Your task to perform on an android device: Delete the most recent email from tau.mosasaurusbr.1654798856748@gmail.com Image 0: 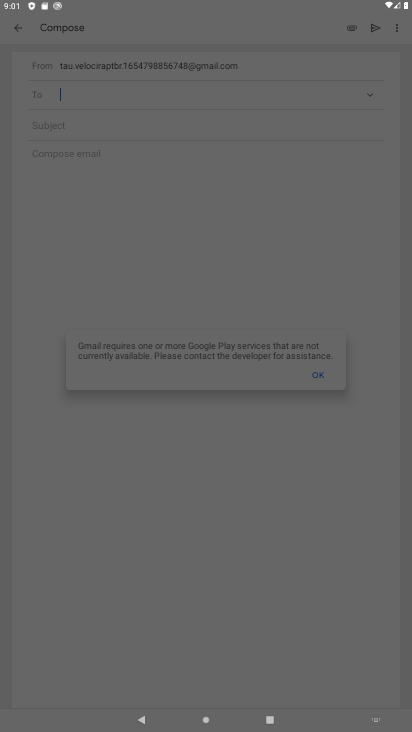
Step 0: press home button
Your task to perform on an android device: Delete the most recent email from tau.mosasaurusbr.1654798856748@gmail.com Image 1: 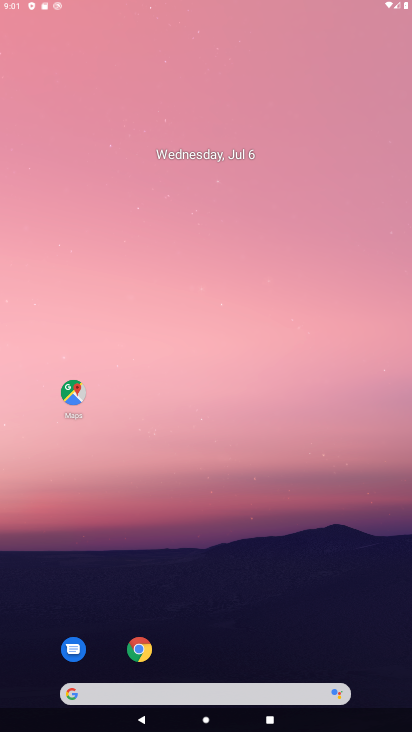
Step 1: drag from (306, 624) to (382, 79)
Your task to perform on an android device: Delete the most recent email from tau.mosasaurusbr.1654798856748@gmail.com Image 2: 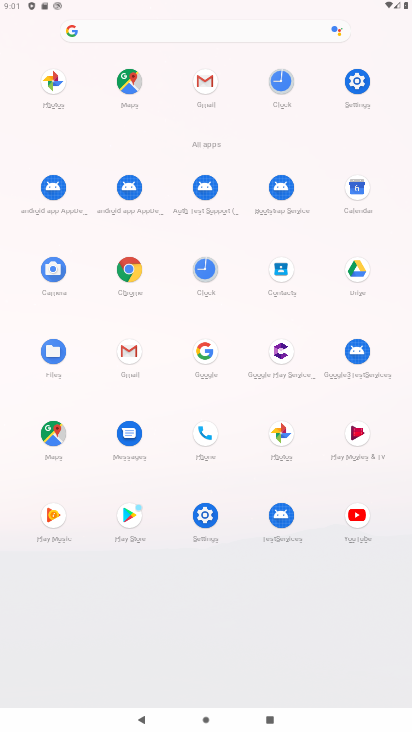
Step 2: click (204, 74)
Your task to perform on an android device: Delete the most recent email from tau.mosasaurusbr.1654798856748@gmail.com Image 3: 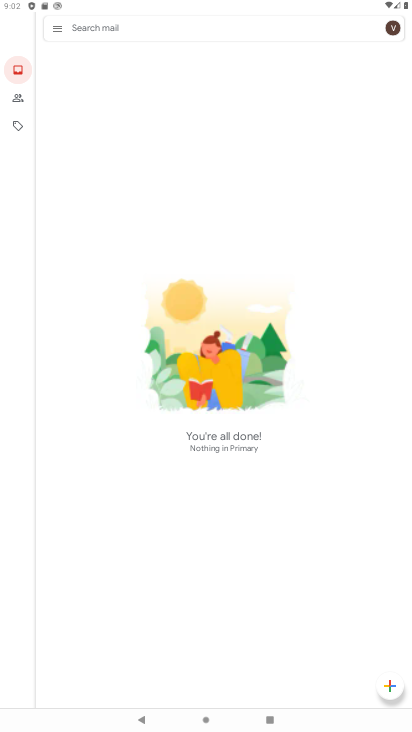
Step 3: task complete